Your task to perform on an android device: change the clock display to analog Image 0: 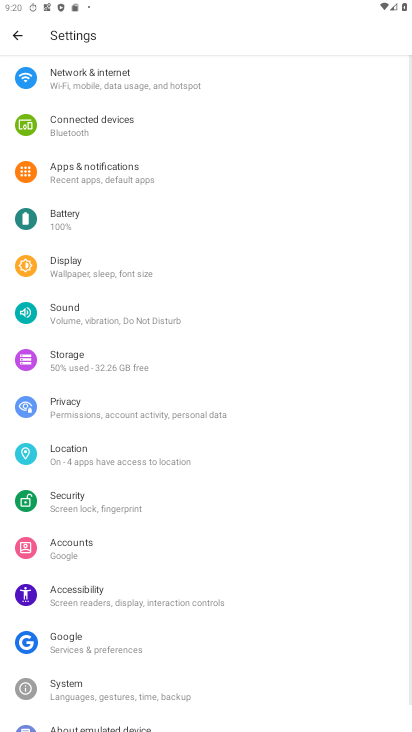
Step 0: press home button
Your task to perform on an android device: change the clock display to analog Image 1: 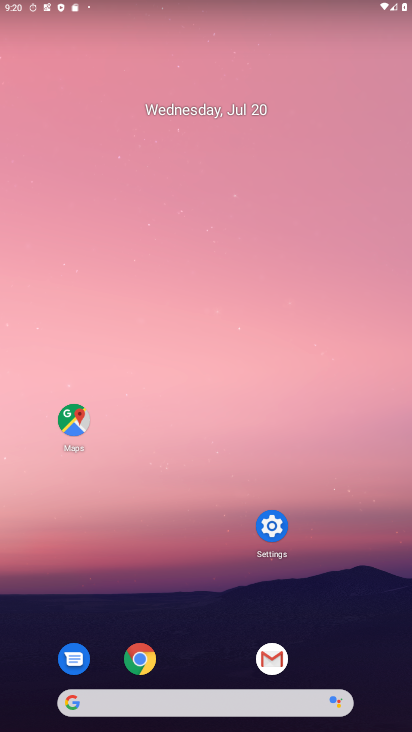
Step 1: drag from (250, 716) to (299, 88)
Your task to perform on an android device: change the clock display to analog Image 2: 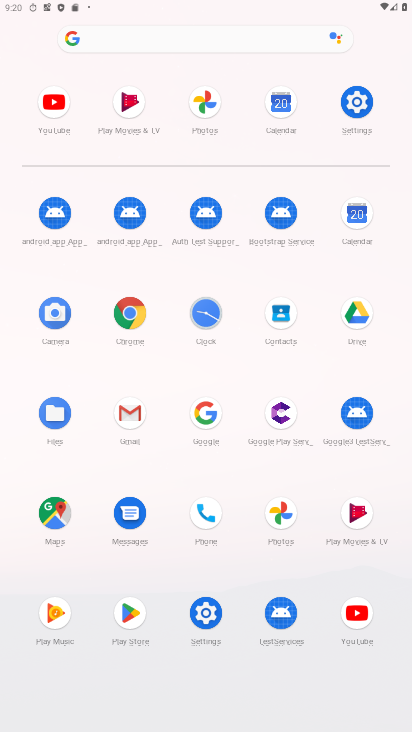
Step 2: click (202, 315)
Your task to perform on an android device: change the clock display to analog Image 3: 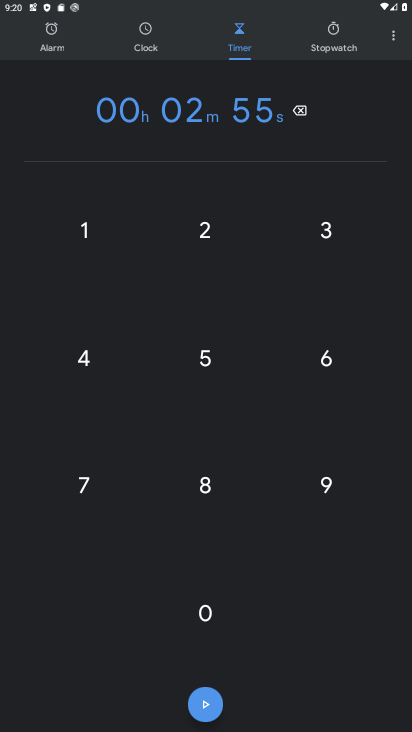
Step 3: click (388, 37)
Your task to perform on an android device: change the clock display to analog Image 4: 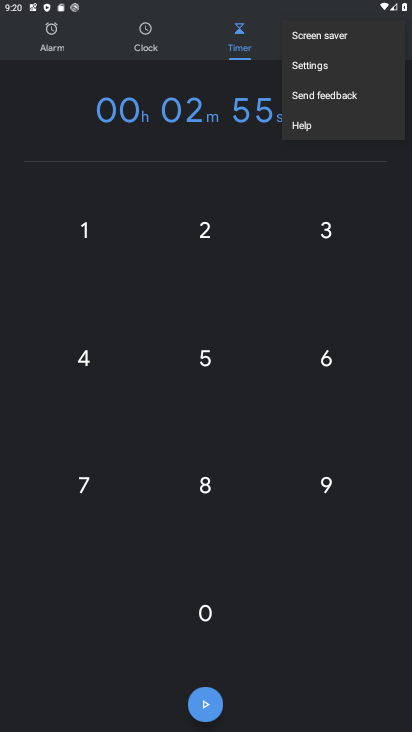
Step 4: click (321, 69)
Your task to perform on an android device: change the clock display to analog Image 5: 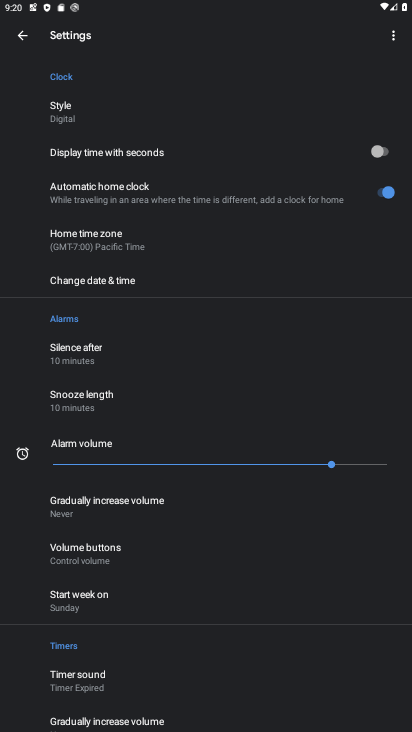
Step 5: click (88, 116)
Your task to perform on an android device: change the clock display to analog Image 6: 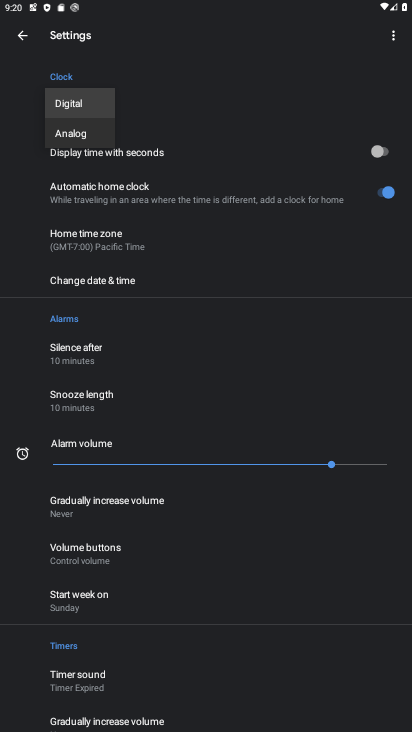
Step 6: click (78, 133)
Your task to perform on an android device: change the clock display to analog Image 7: 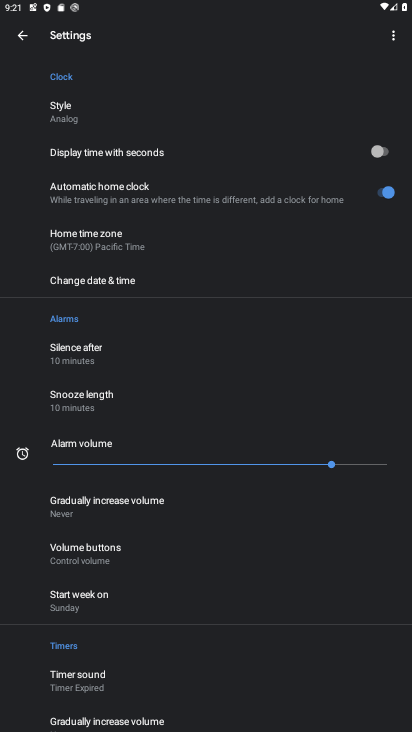
Step 7: task complete